Your task to perform on an android device: Open the web browser Image 0: 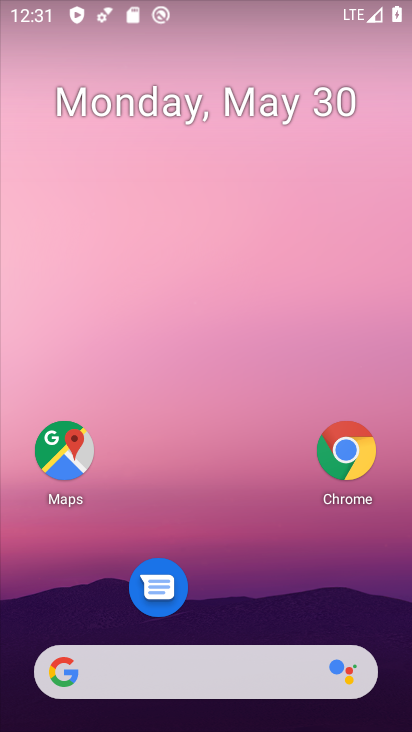
Step 0: drag from (249, 608) to (208, 127)
Your task to perform on an android device: Open the web browser Image 1: 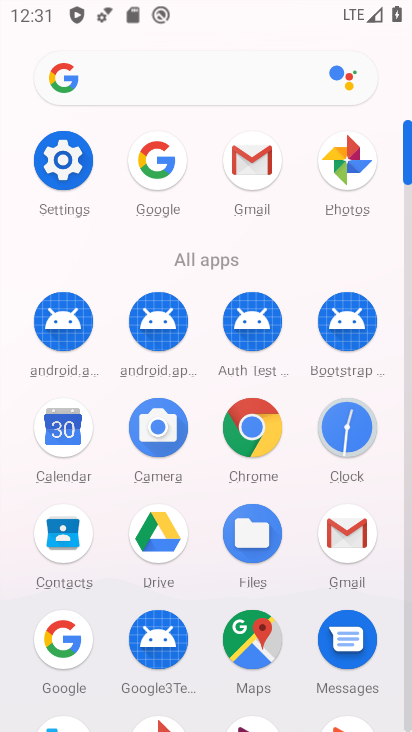
Step 1: click (63, 638)
Your task to perform on an android device: Open the web browser Image 2: 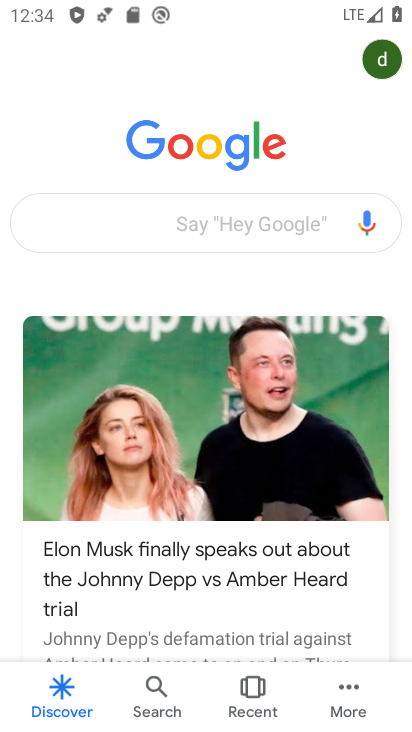
Step 2: task complete